Your task to perform on an android device: Open accessibility settings Image 0: 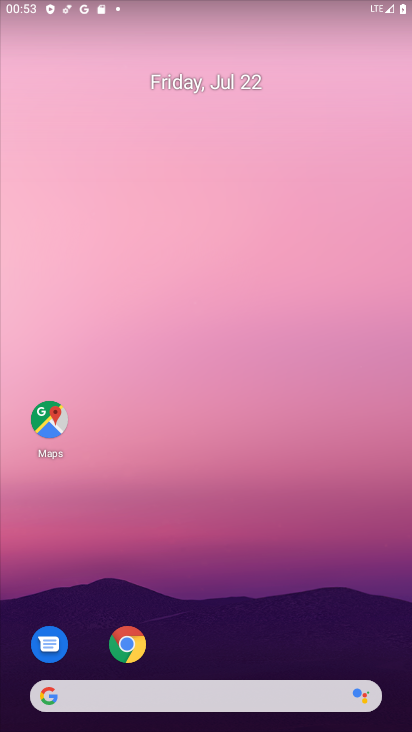
Step 0: drag from (219, 620) to (168, 1)
Your task to perform on an android device: Open accessibility settings Image 1: 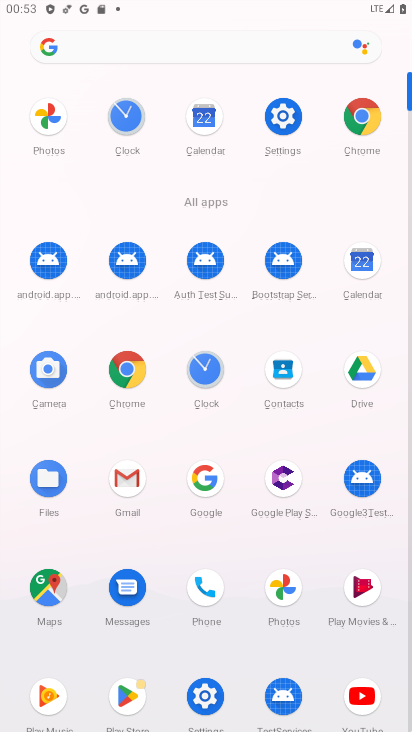
Step 1: click (278, 129)
Your task to perform on an android device: Open accessibility settings Image 2: 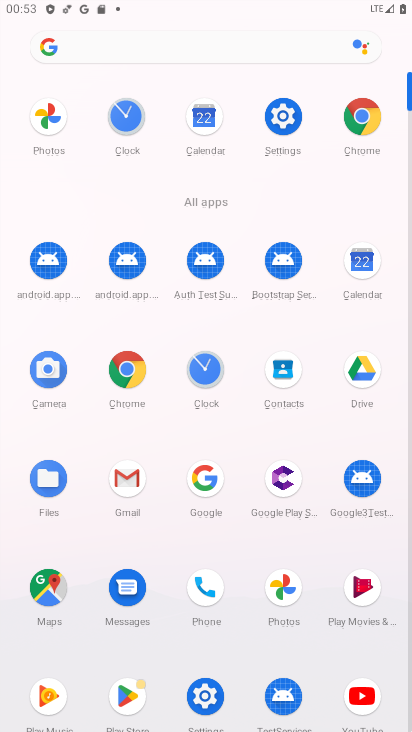
Step 2: click (278, 129)
Your task to perform on an android device: Open accessibility settings Image 3: 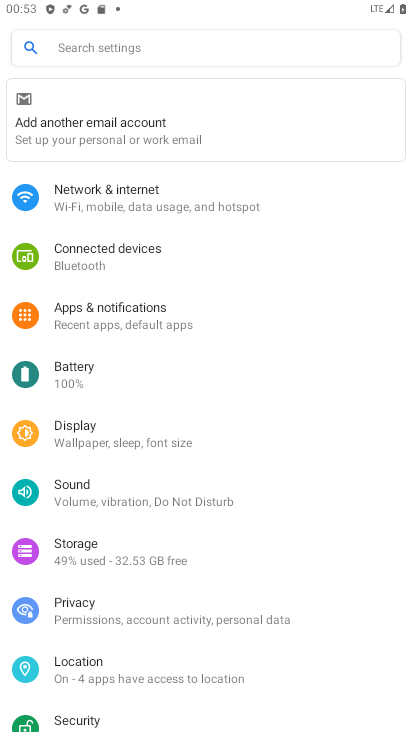
Step 3: drag from (168, 546) to (91, 38)
Your task to perform on an android device: Open accessibility settings Image 4: 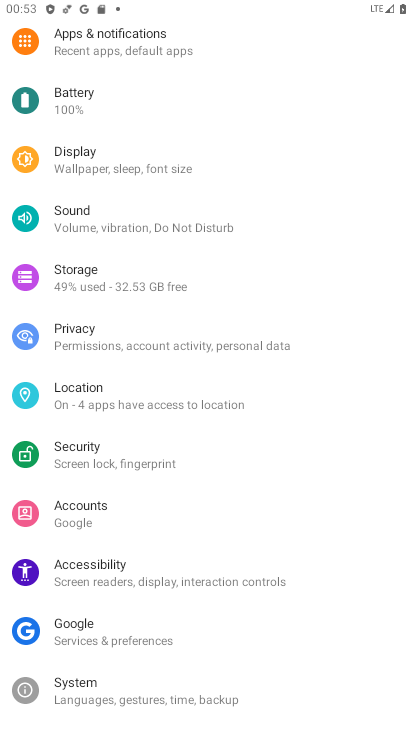
Step 4: click (135, 576)
Your task to perform on an android device: Open accessibility settings Image 5: 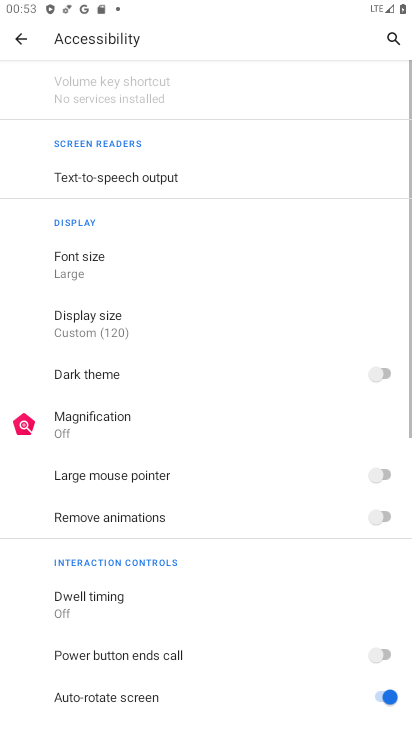
Step 5: task complete